Your task to perform on an android device: What's on my calendar tomorrow? Image 0: 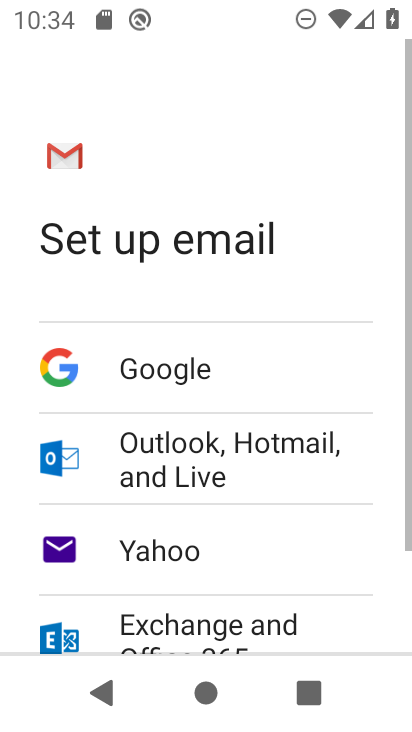
Step 0: press home button
Your task to perform on an android device: What's on my calendar tomorrow? Image 1: 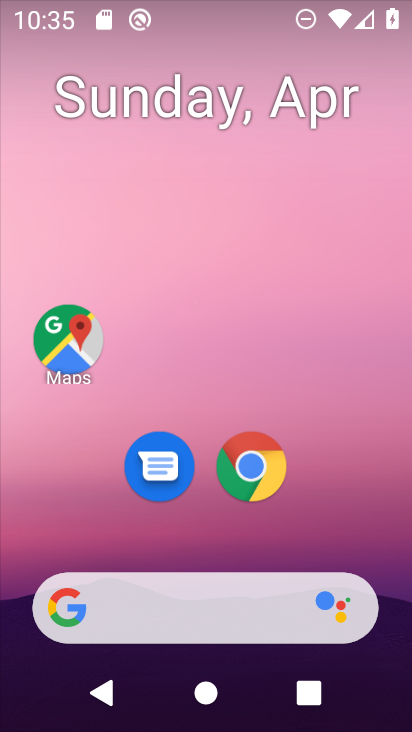
Step 1: drag from (356, 510) to (358, 115)
Your task to perform on an android device: What's on my calendar tomorrow? Image 2: 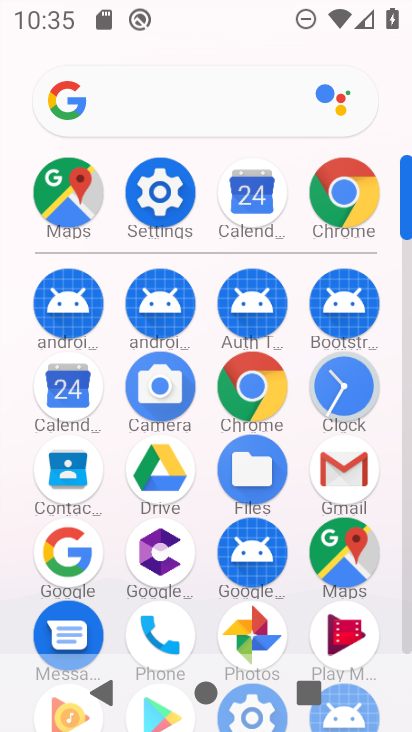
Step 2: click (80, 389)
Your task to perform on an android device: What's on my calendar tomorrow? Image 3: 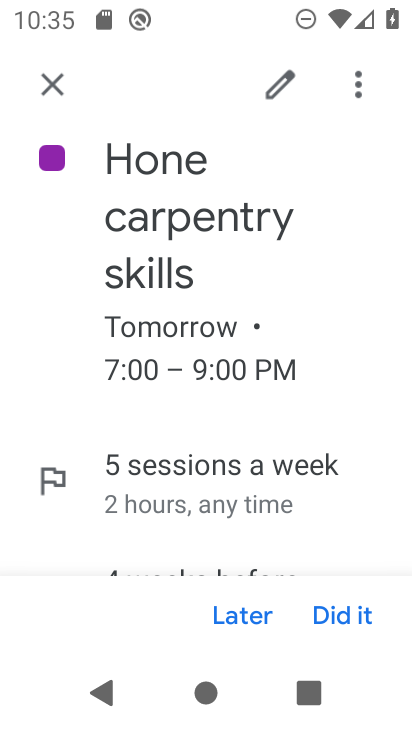
Step 3: click (49, 79)
Your task to perform on an android device: What's on my calendar tomorrow? Image 4: 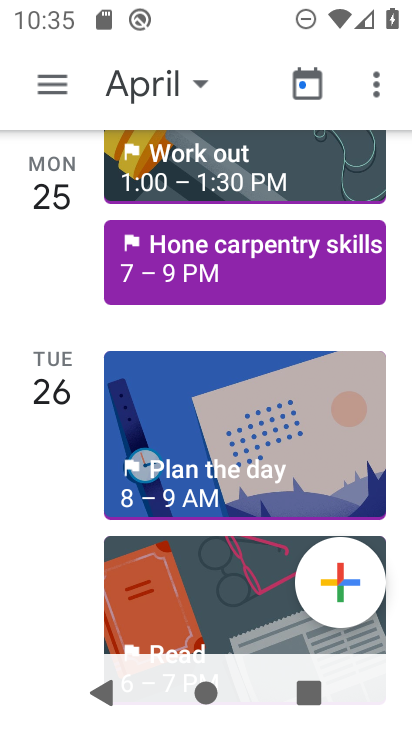
Step 4: click (202, 76)
Your task to perform on an android device: What's on my calendar tomorrow? Image 5: 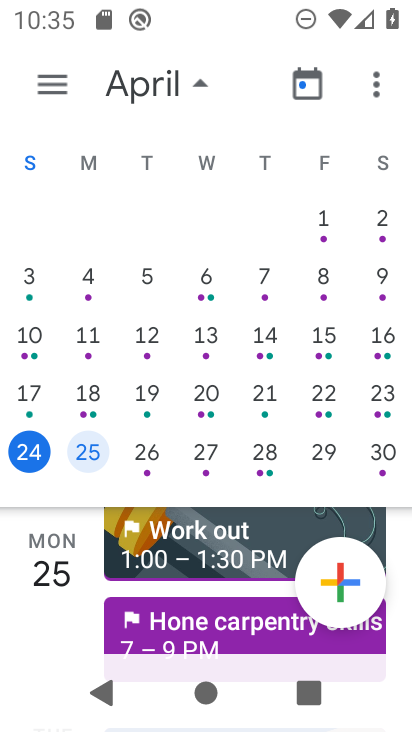
Step 5: click (151, 450)
Your task to perform on an android device: What's on my calendar tomorrow? Image 6: 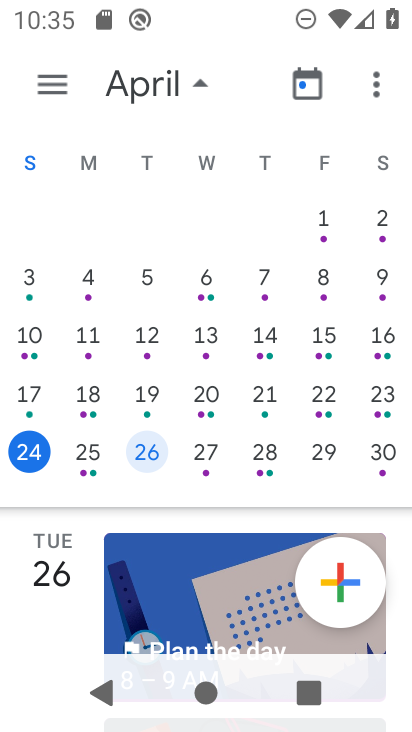
Step 6: drag from (232, 571) to (225, 240)
Your task to perform on an android device: What's on my calendar tomorrow? Image 7: 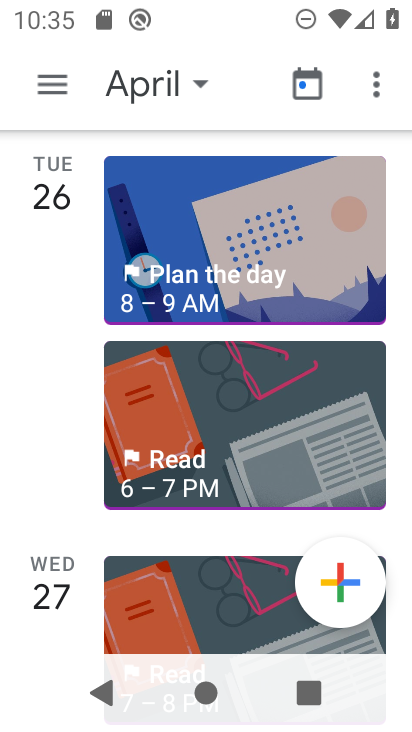
Step 7: click (220, 255)
Your task to perform on an android device: What's on my calendar tomorrow? Image 8: 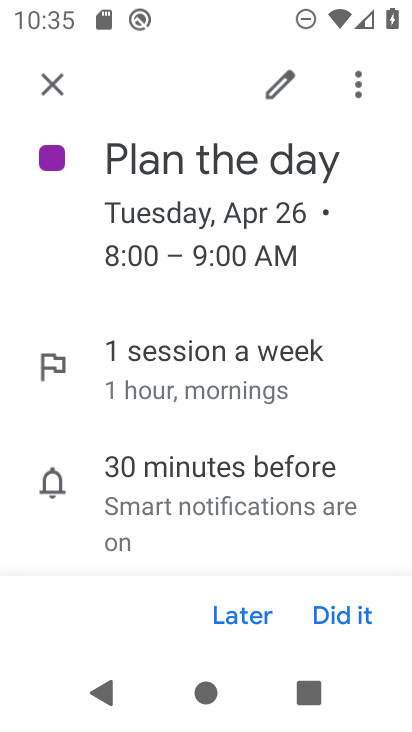
Step 8: task complete